Your task to perform on an android device: turn off improve location accuracy Image 0: 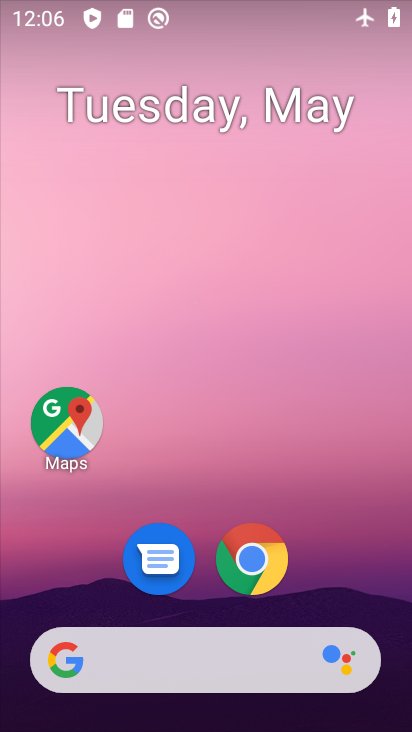
Step 0: drag from (94, 637) to (247, 100)
Your task to perform on an android device: turn off improve location accuracy Image 1: 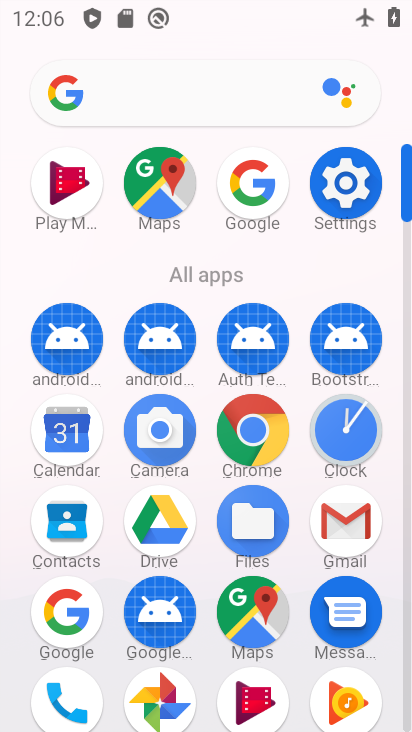
Step 1: drag from (183, 601) to (236, 393)
Your task to perform on an android device: turn off improve location accuracy Image 2: 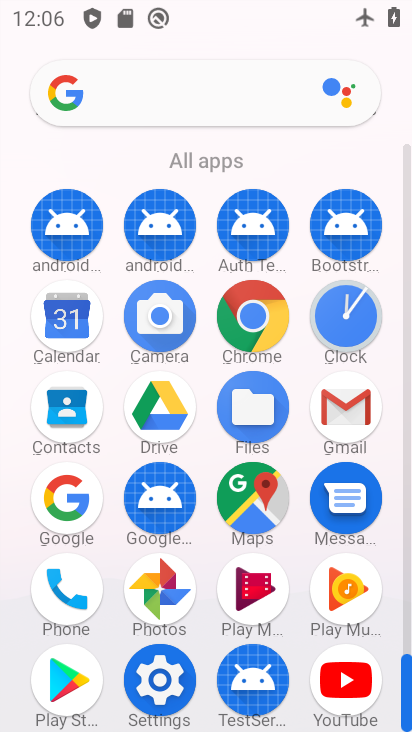
Step 2: click (152, 678)
Your task to perform on an android device: turn off improve location accuracy Image 3: 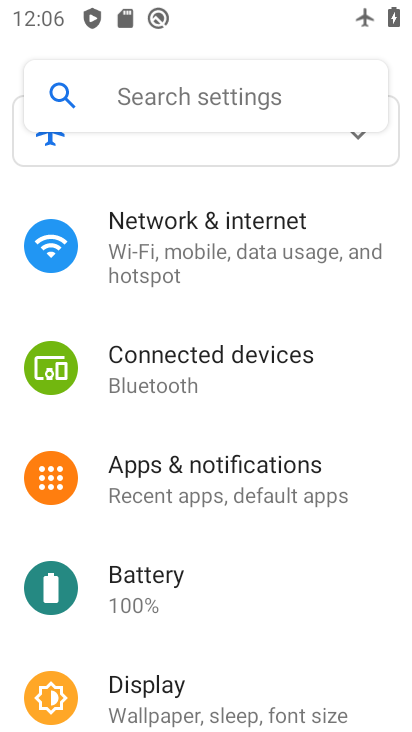
Step 3: drag from (158, 664) to (295, 245)
Your task to perform on an android device: turn off improve location accuracy Image 4: 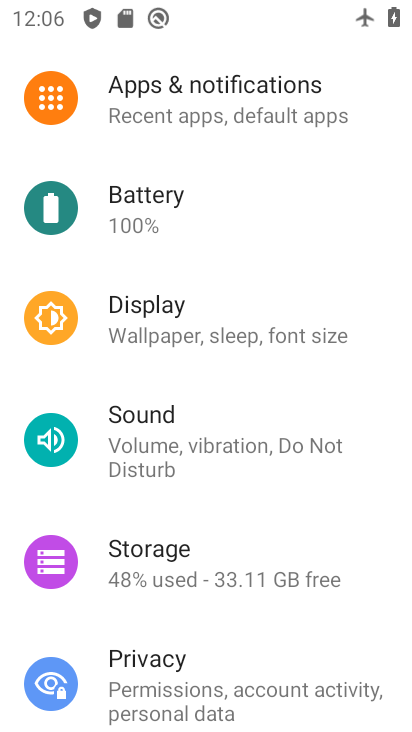
Step 4: drag from (186, 623) to (319, 187)
Your task to perform on an android device: turn off improve location accuracy Image 5: 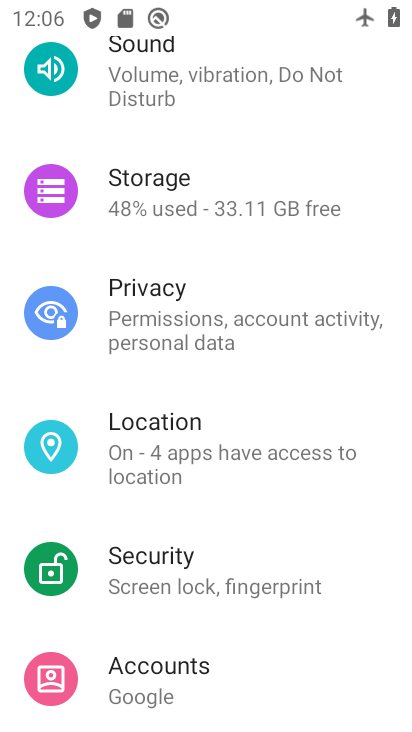
Step 5: click (227, 462)
Your task to perform on an android device: turn off improve location accuracy Image 6: 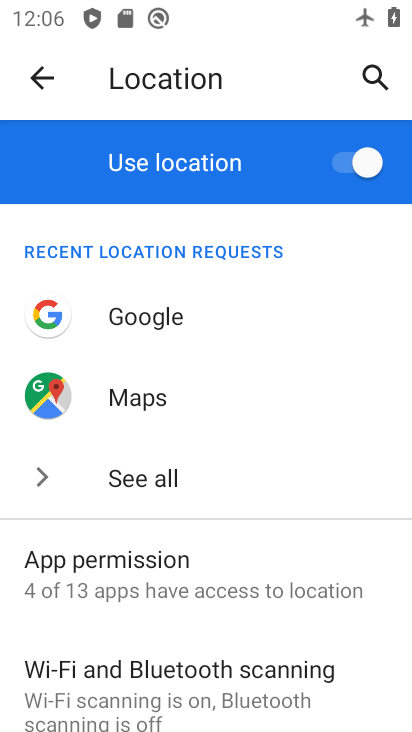
Step 6: drag from (209, 659) to (294, 347)
Your task to perform on an android device: turn off improve location accuracy Image 7: 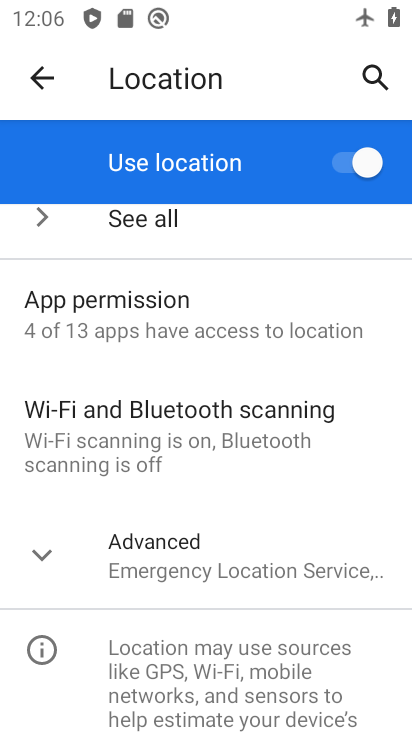
Step 7: click (229, 583)
Your task to perform on an android device: turn off improve location accuracy Image 8: 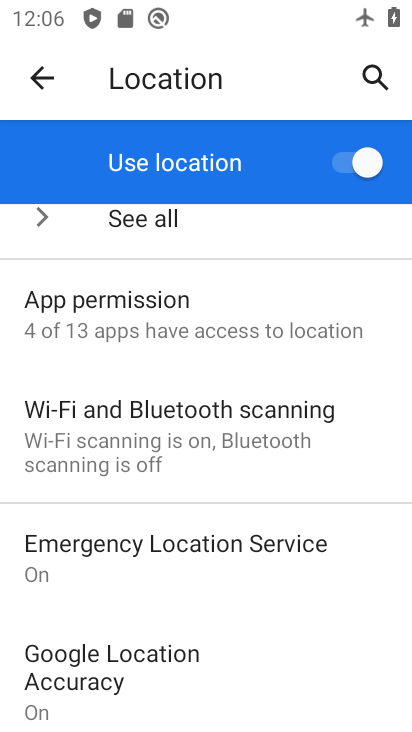
Step 8: drag from (213, 713) to (303, 340)
Your task to perform on an android device: turn off improve location accuracy Image 9: 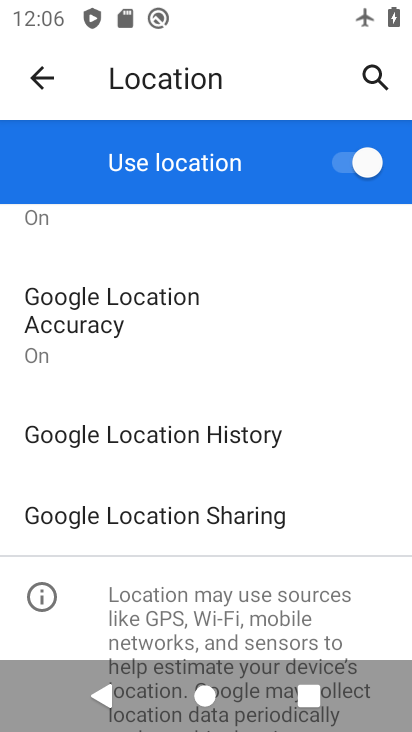
Step 9: click (213, 329)
Your task to perform on an android device: turn off improve location accuracy Image 10: 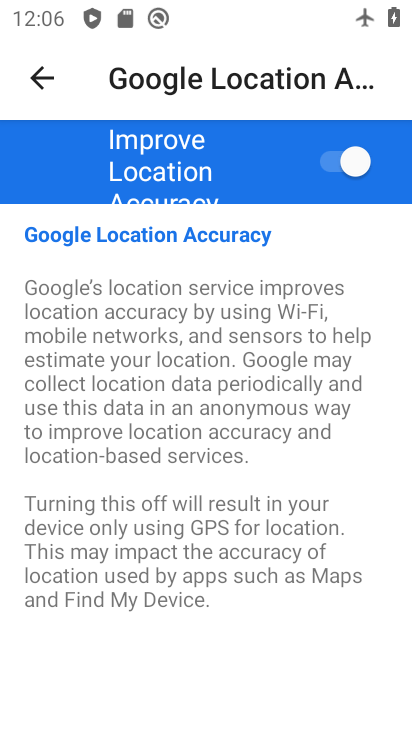
Step 10: click (323, 157)
Your task to perform on an android device: turn off improve location accuracy Image 11: 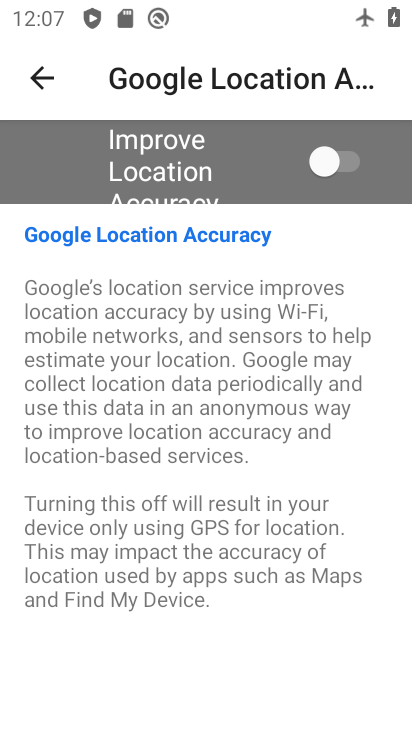
Step 11: task complete